Your task to perform on an android device: Open notification settings Image 0: 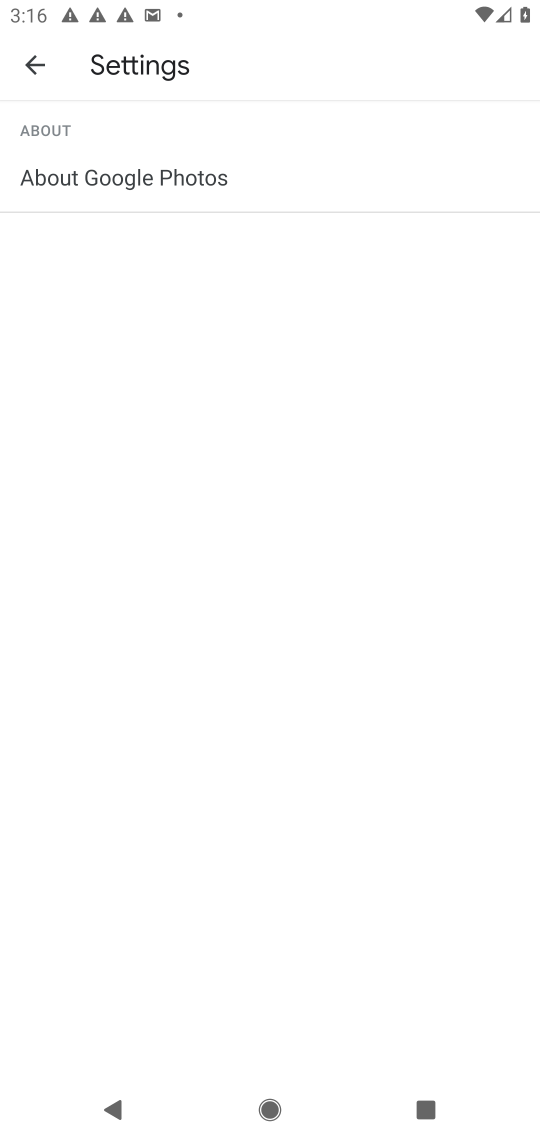
Step 0: press home button
Your task to perform on an android device: Open notification settings Image 1: 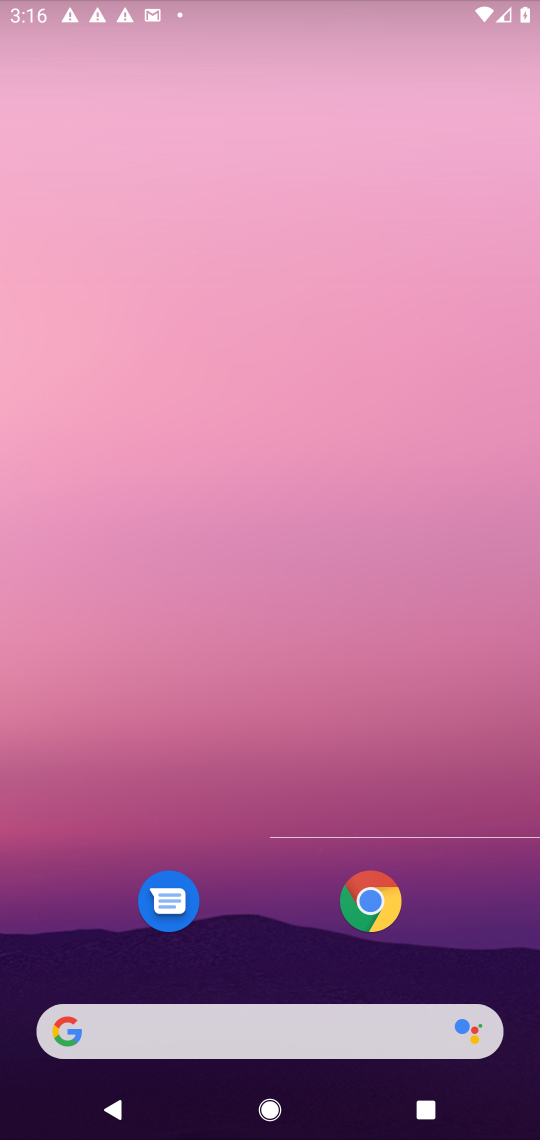
Step 1: drag from (285, 942) to (344, 279)
Your task to perform on an android device: Open notification settings Image 2: 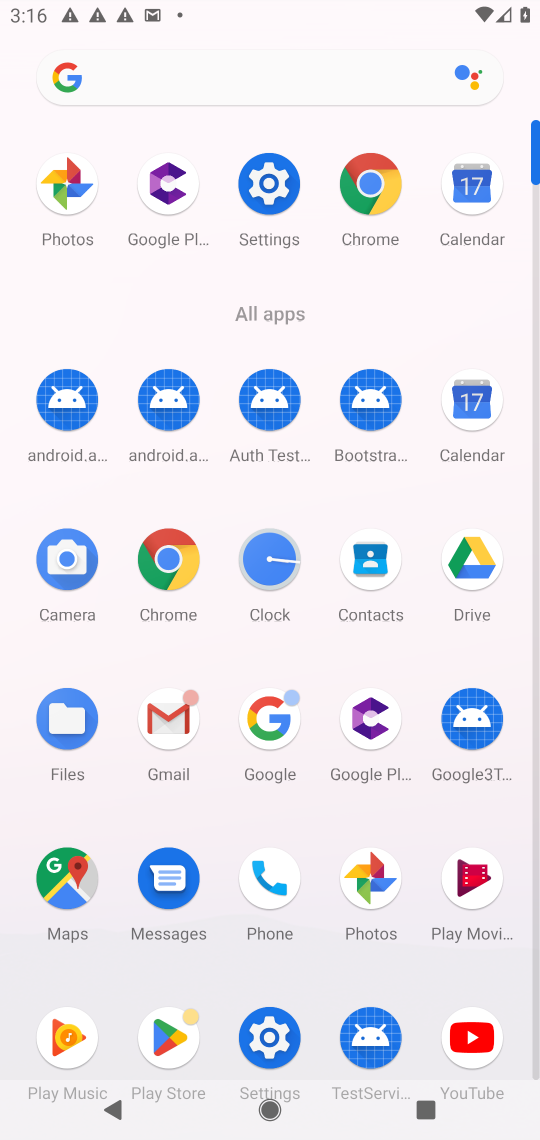
Step 2: click (286, 1046)
Your task to perform on an android device: Open notification settings Image 3: 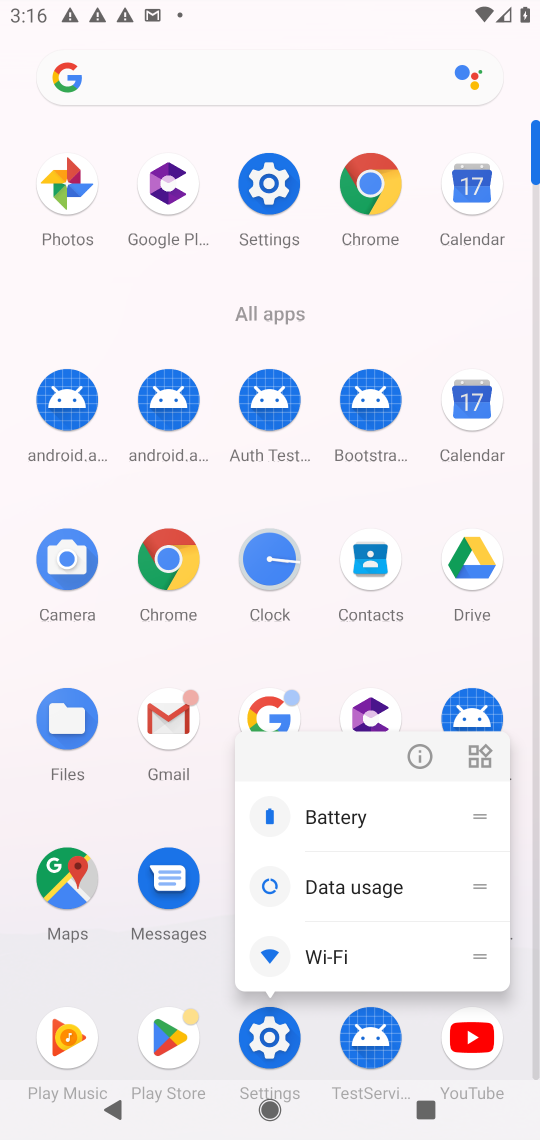
Step 3: click (286, 1046)
Your task to perform on an android device: Open notification settings Image 4: 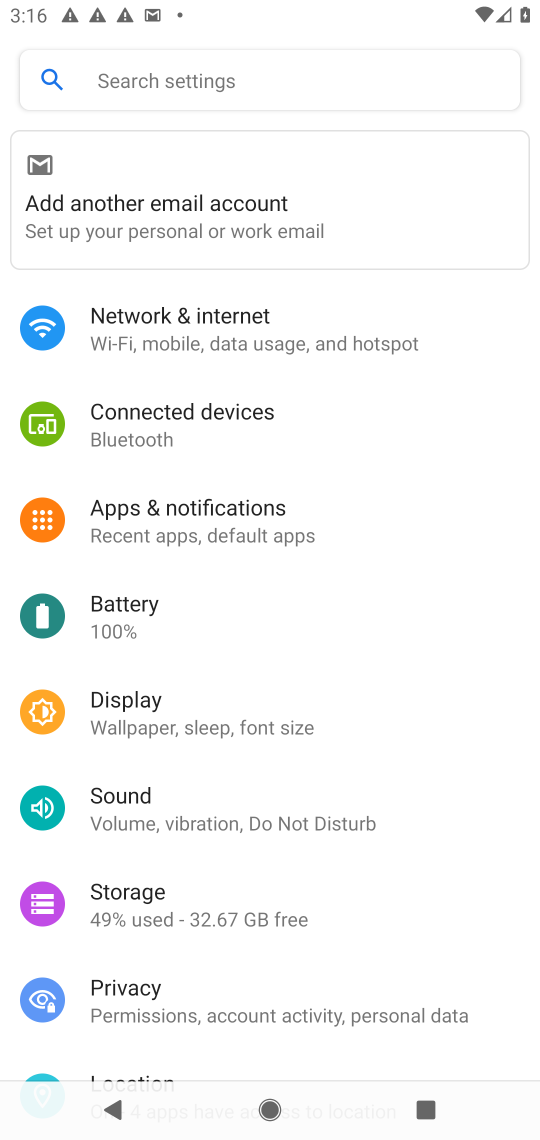
Step 4: click (193, 527)
Your task to perform on an android device: Open notification settings Image 5: 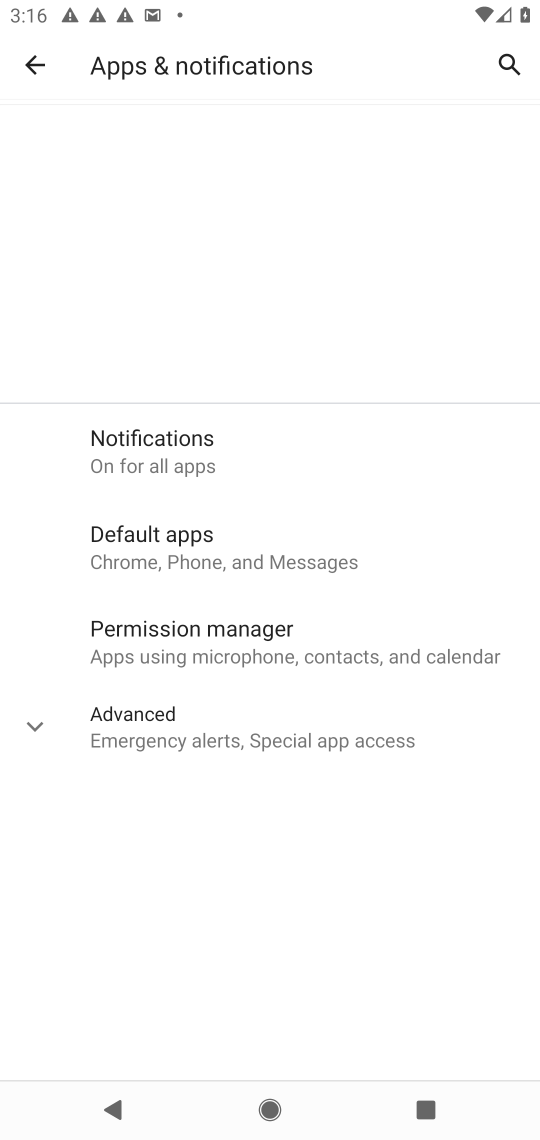
Step 5: click (149, 685)
Your task to perform on an android device: Open notification settings Image 6: 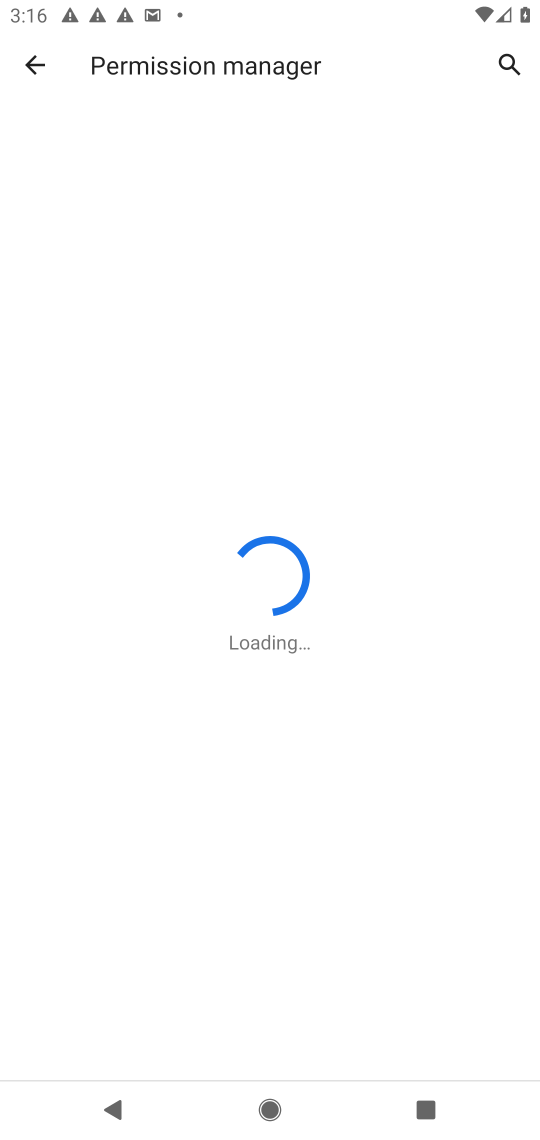
Step 6: task complete